Your task to perform on an android device: toggle notifications settings in the gmail app Image 0: 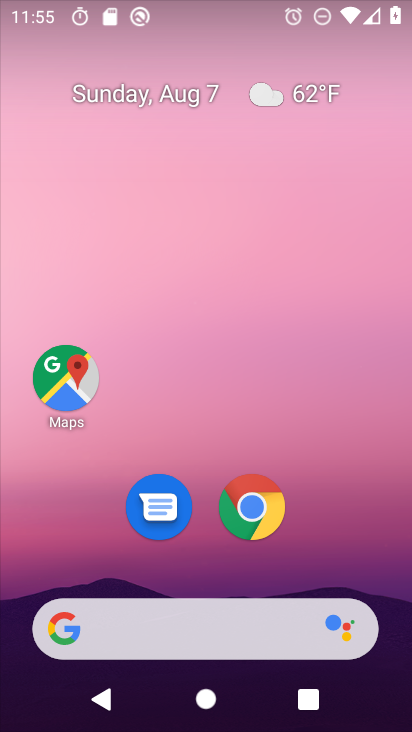
Step 0: click (386, 549)
Your task to perform on an android device: toggle notifications settings in the gmail app Image 1: 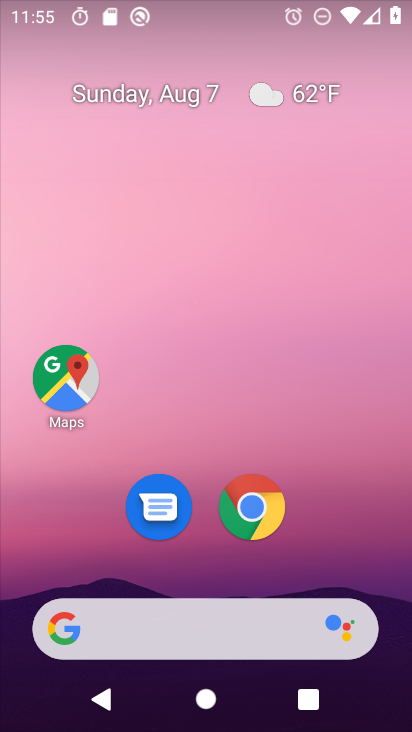
Step 1: drag from (394, 514) to (344, 20)
Your task to perform on an android device: toggle notifications settings in the gmail app Image 2: 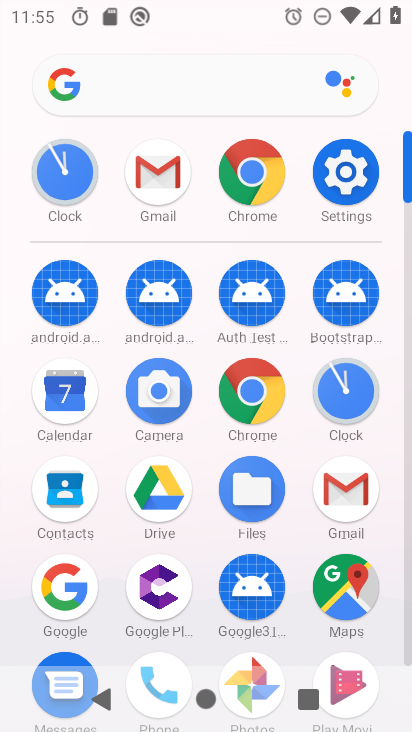
Step 2: click (159, 172)
Your task to perform on an android device: toggle notifications settings in the gmail app Image 3: 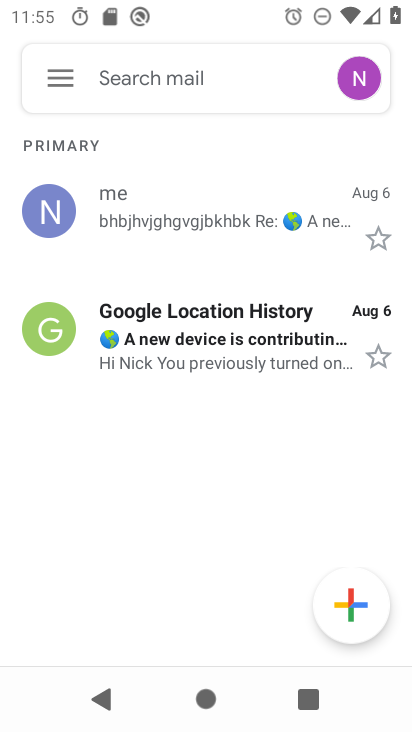
Step 3: click (56, 75)
Your task to perform on an android device: toggle notifications settings in the gmail app Image 4: 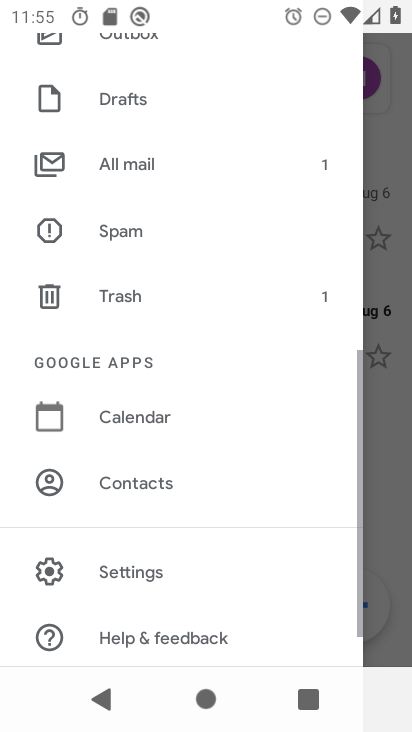
Step 4: click (136, 577)
Your task to perform on an android device: toggle notifications settings in the gmail app Image 5: 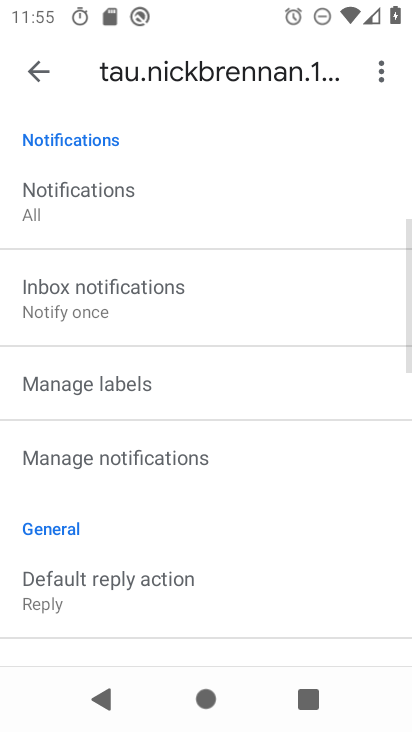
Step 5: drag from (225, 170) to (174, 617)
Your task to perform on an android device: toggle notifications settings in the gmail app Image 6: 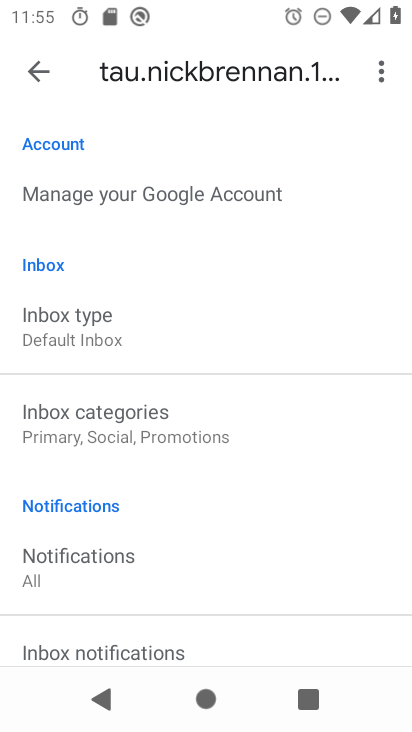
Step 6: drag from (204, 324) to (192, 581)
Your task to perform on an android device: toggle notifications settings in the gmail app Image 7: 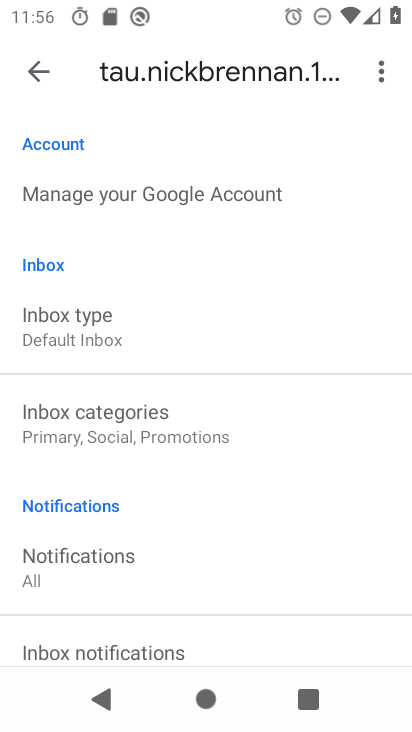
Step 7: drag from (268, 533) to (344, 191)
Your task to perform on an android device: toggle notifications settings in the gmail app Image 8: 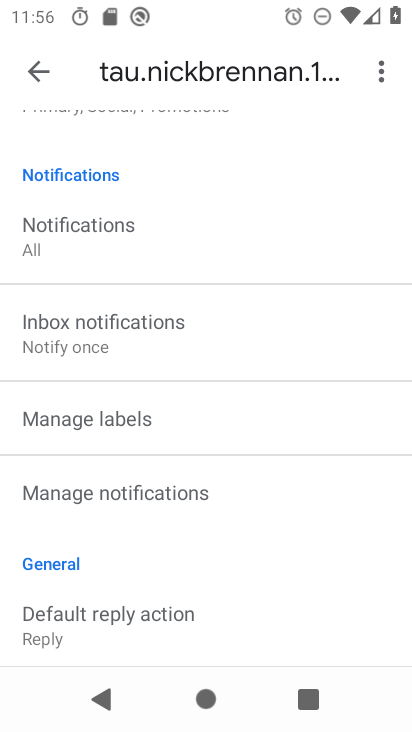
Step 8: click (171, 491)
Your task to perform on an android device: toggle notifications settings in the gmail app Image 9: 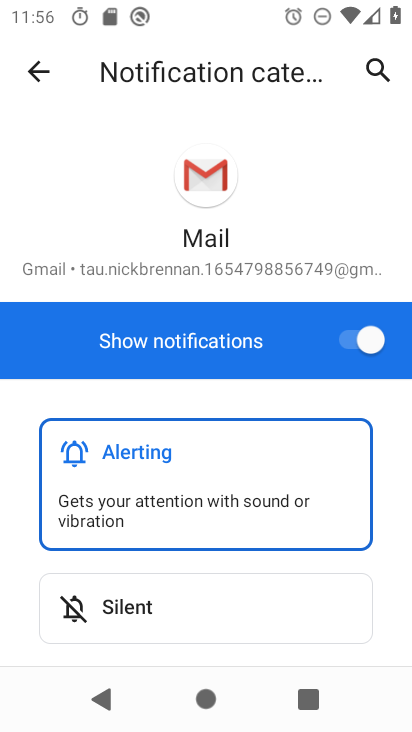
Step 9: click (317, 338)
Your task to perform on an android device: toggle notifications settings in the gmail app Image 10: 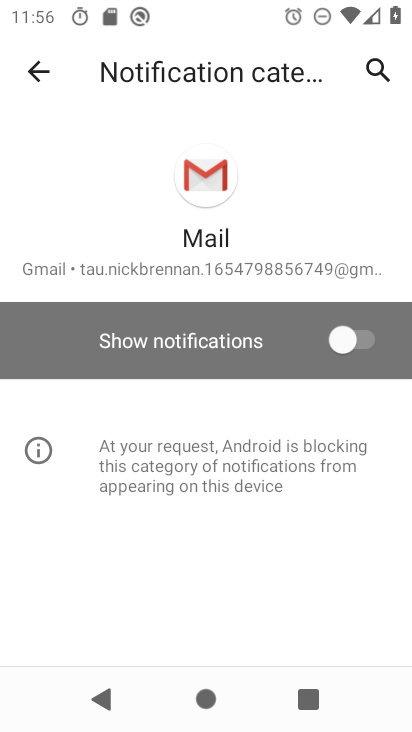
Step 10: task complete